Your task to perform on an android device: open wifi settings Image 0: 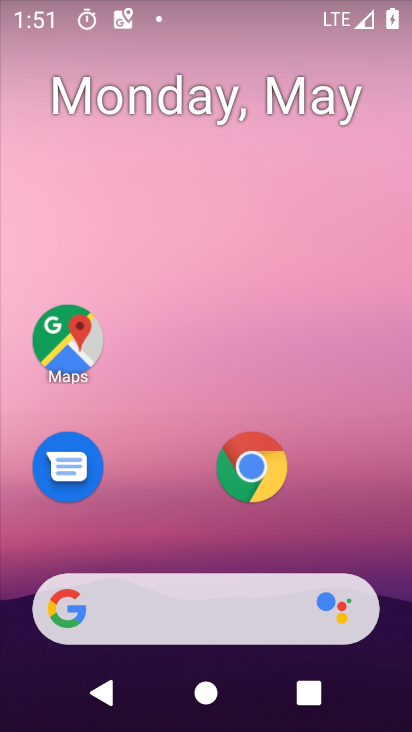
Step 0: drag from (205, 593) to (241, 138)
Your task to perform on an android device: open wifi settings Image 1: 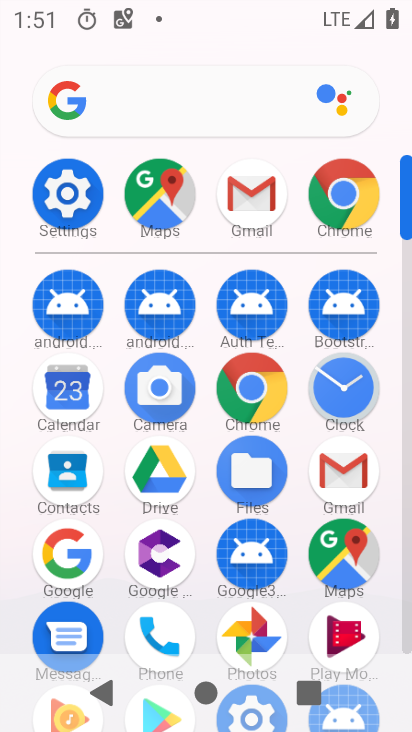
Step 1: click (70, 203)
Your task to perform on an android device: open wifi settings Image 2: 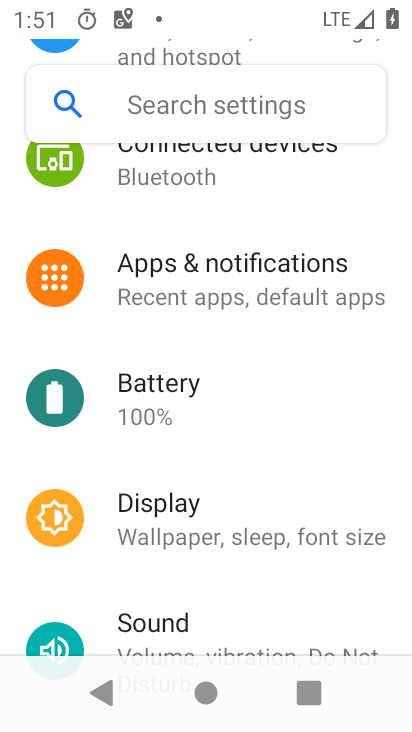
Step 2: drag from (265, 327) to (292, 716)
Your task to perform on an android device: open wifi settings Image 3: 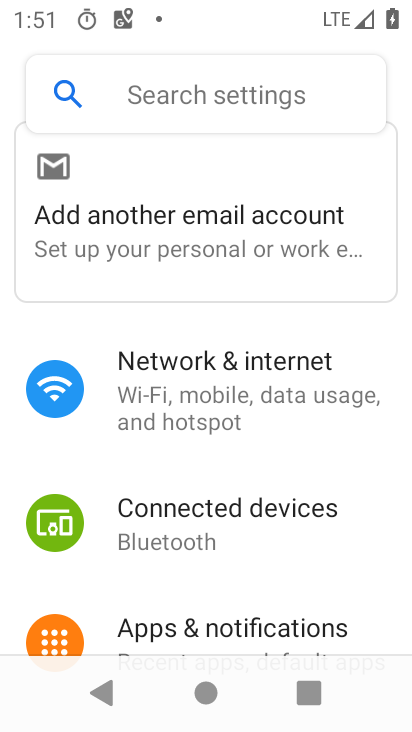
Step 3: click (168, 384)
Your task to perform on an android device: open wifi settings Image 4: 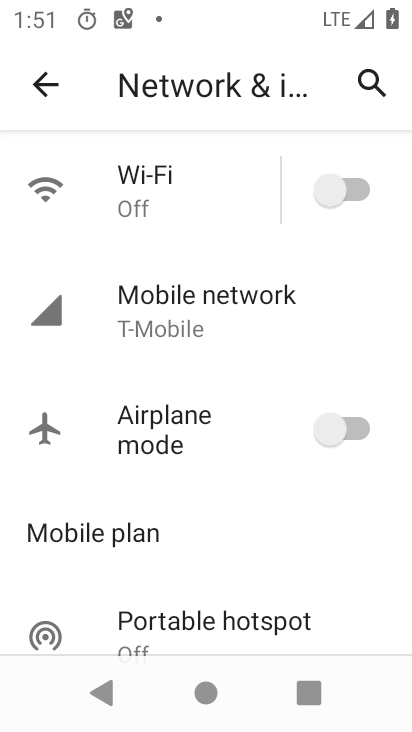
Step 4: drag from (228, 524) to (265, 146)
Your task to perform on an android device: open wifi settings Image 5: 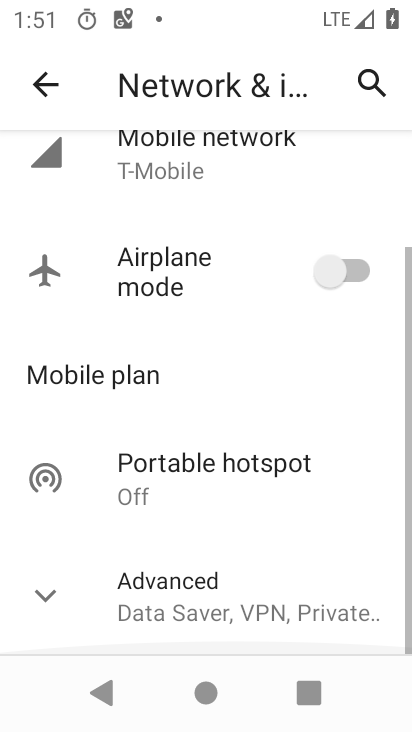
Step 5: drag from (277, 105) to (254, 730)
Your task to perform on an android device: open wifi settings Image 6: 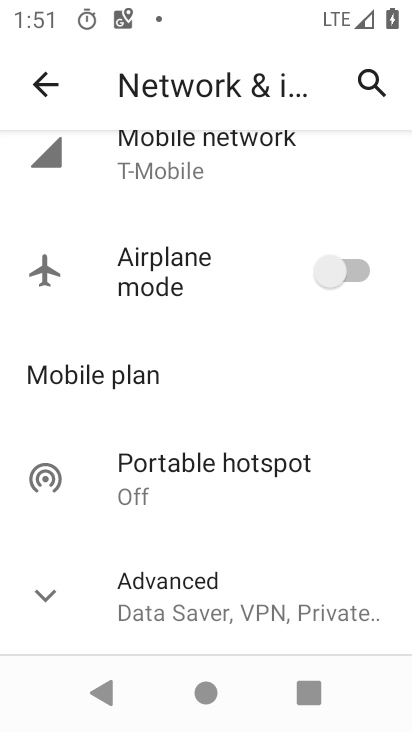
Step 6: drag from (267, 222) to (244, 687)
Your task to perform on an android device: open wifi settings Image 7: 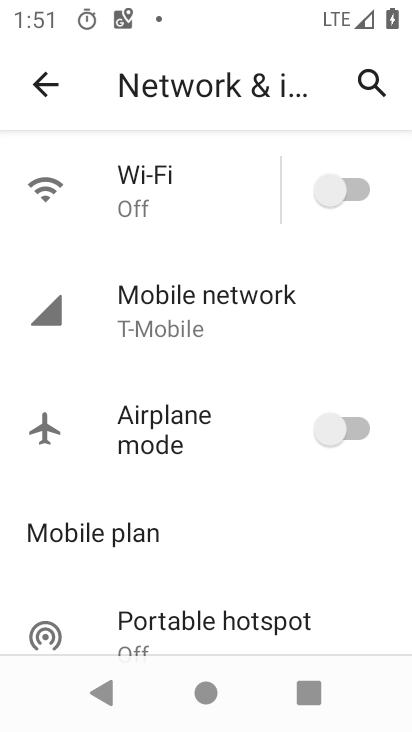
Step 7: click (193, 176)
Your task to perform on an android device: open wifi settings Image 8: 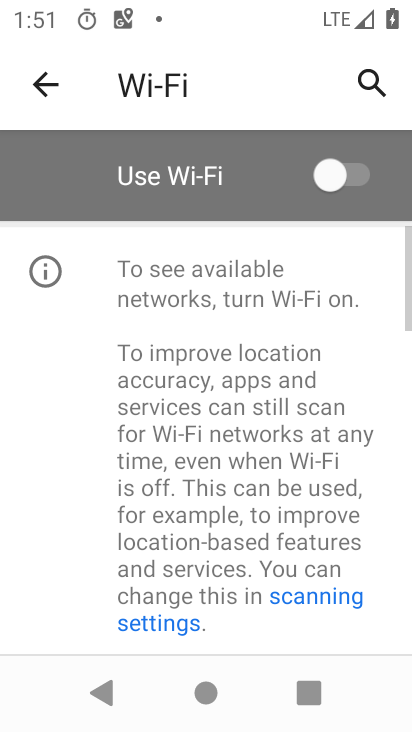
Step 8: task complete